Your task to perform on an android device: change the upload size in google photos Image 0: 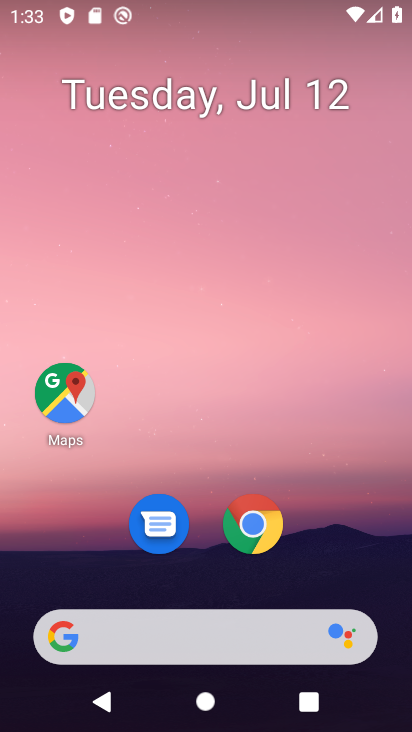
Step 0: drag from (211, 457) to (201, 80)
Your task to perform on an android device: change the upload size in google photos Image 1: 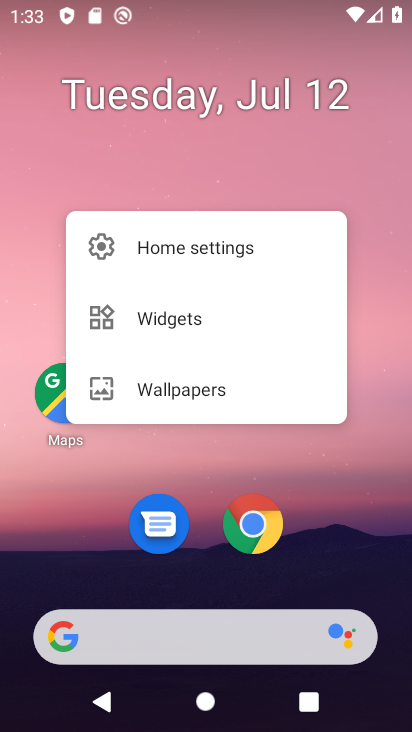
Step 1: click (347, 342)
Your task to perform on an android device: change the upload size in google photos Image 2: 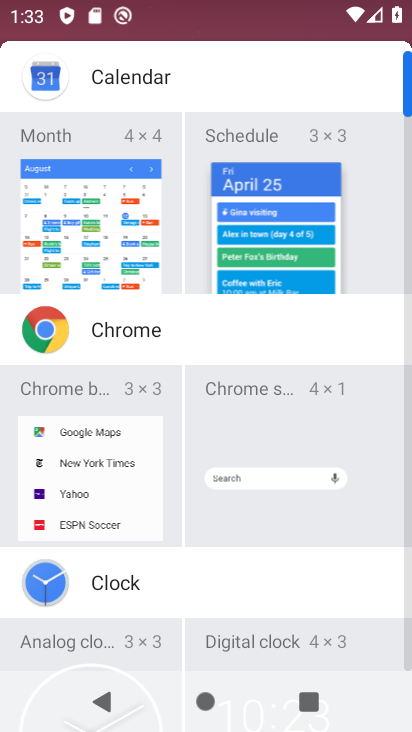
Step 2: press home button
Your task to perform on an android device: change the upload size in google photos Image 3: 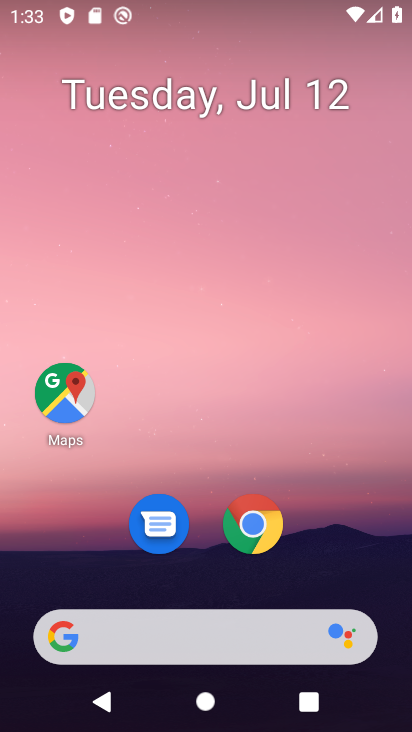
Step 3: drag from (319, 519) to (363, 32)
Your task to perform on an android device: change the upload size in google photos Image 4: 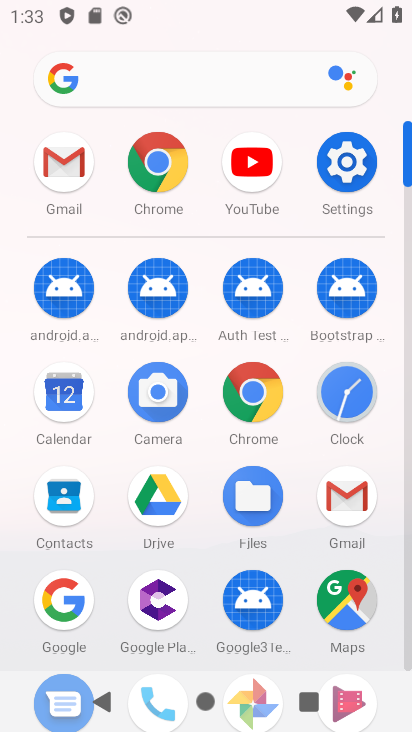
Step 4: drag from (202, 462) to (213, 200)
Your task to perform on an android device: change the upload size in google photos Image 5: 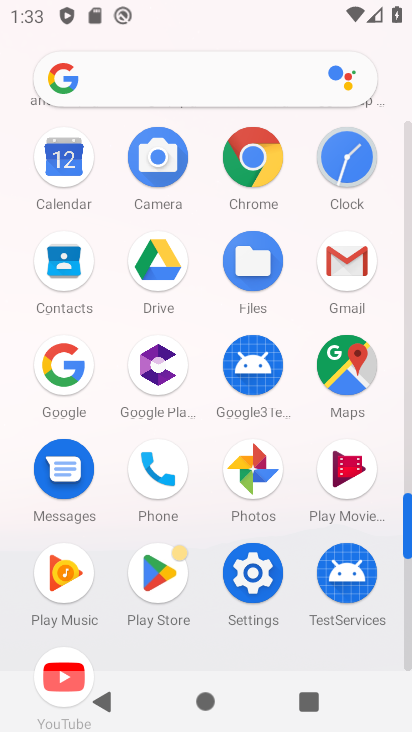
Step 5: click (247, 460)
Your task to perform on an android device: change the upload size in google photos Image 6: 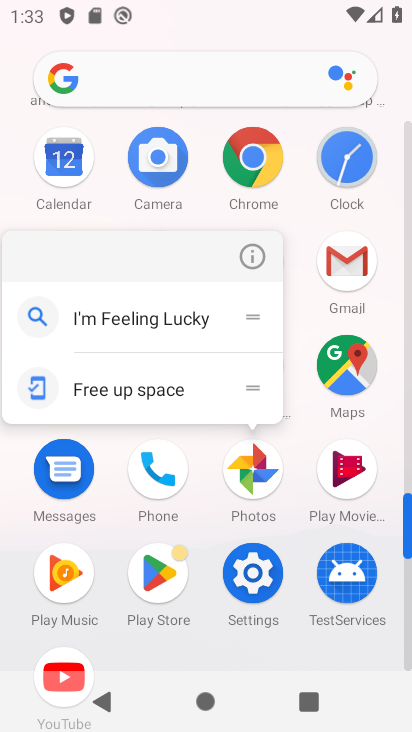
Step 6: click (247, 460)
Your task to perform on an android device: change the upload size in google photos Image 7: 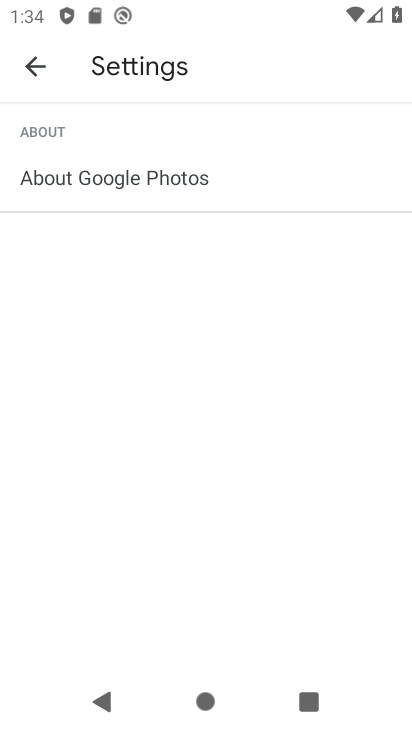
Step 7: click (43, 66)
Your task to perform on an android device: change the upload size in google photos Image 8: 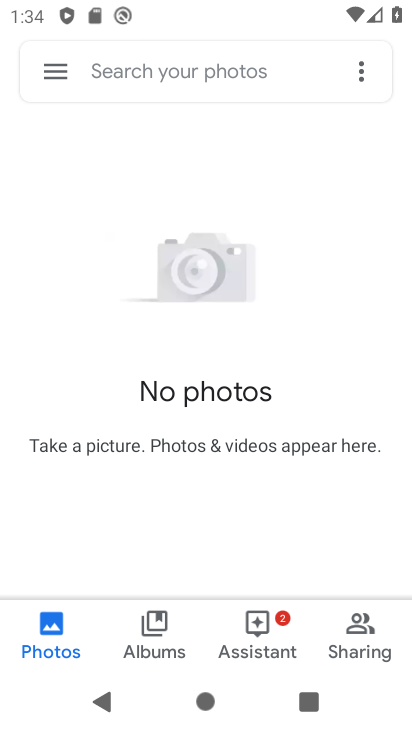
Step 8: click (43, 66)
Your task to perform on an android device: change the upload size in google photos Image 9: 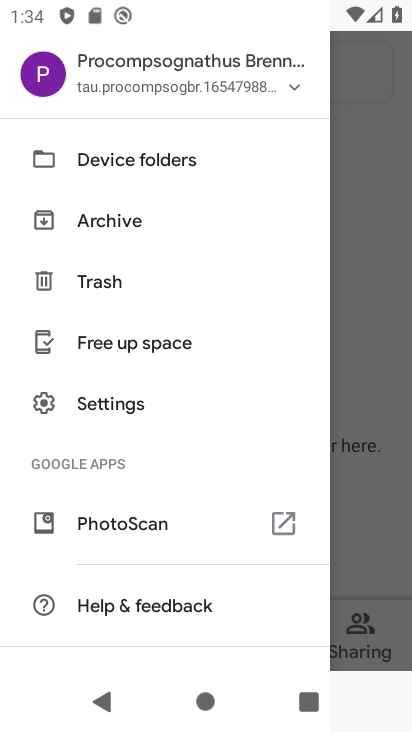
Step 9: click (133, 395)
Your task to perform on an android device: change the upload size in google photos Image 10: 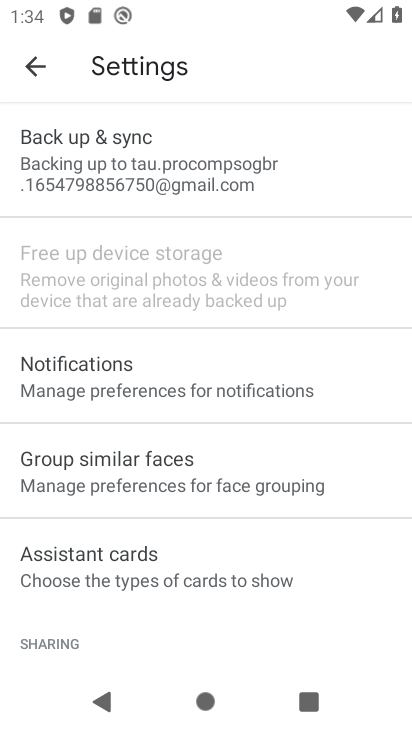
Step 10: click (259, 164)
Your task to perform on an android device: change the upload size in google photos Image 11: 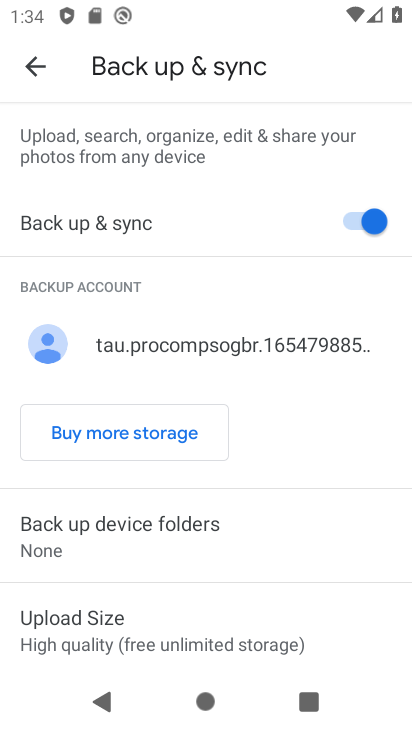
Step 11: click (200, 625)
Your task to perform on an android device: change the upload size in google photos Image 12: 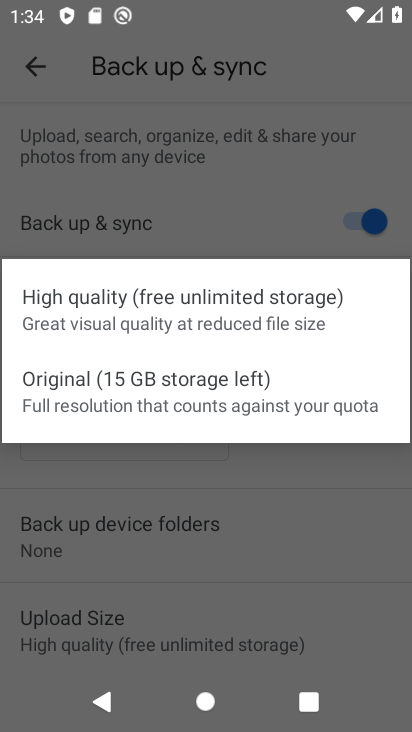
Step 12: click (212, 406)
Your task to perform on an android device: change the upload size in google photos Image 13: 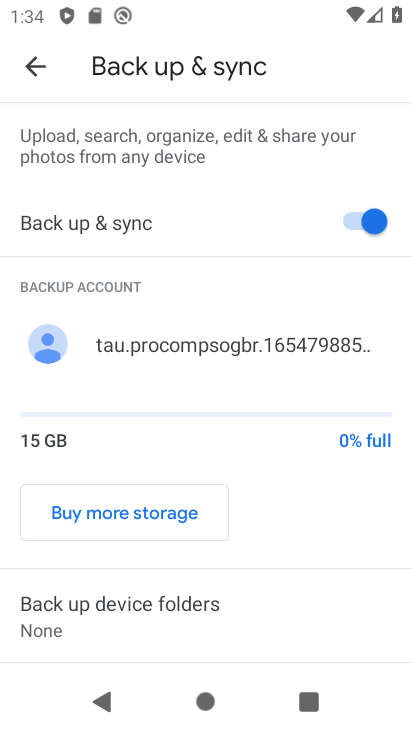
Step 13: task complete